Your task to perform on an android device: check battery use Image 0: 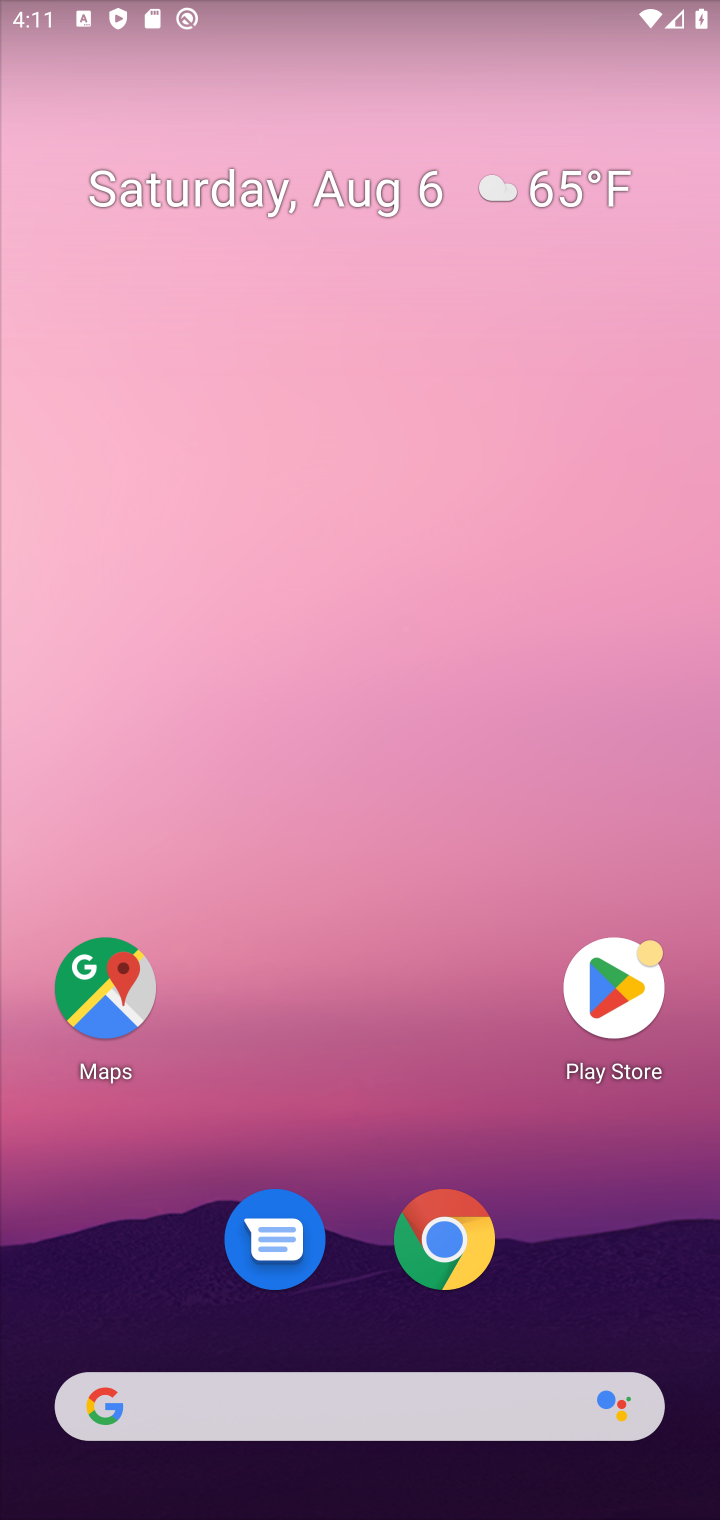
Step 0: drag from (354, 1161) to (276, 207)
Your task to perform on an android device: check battery use Image 1: 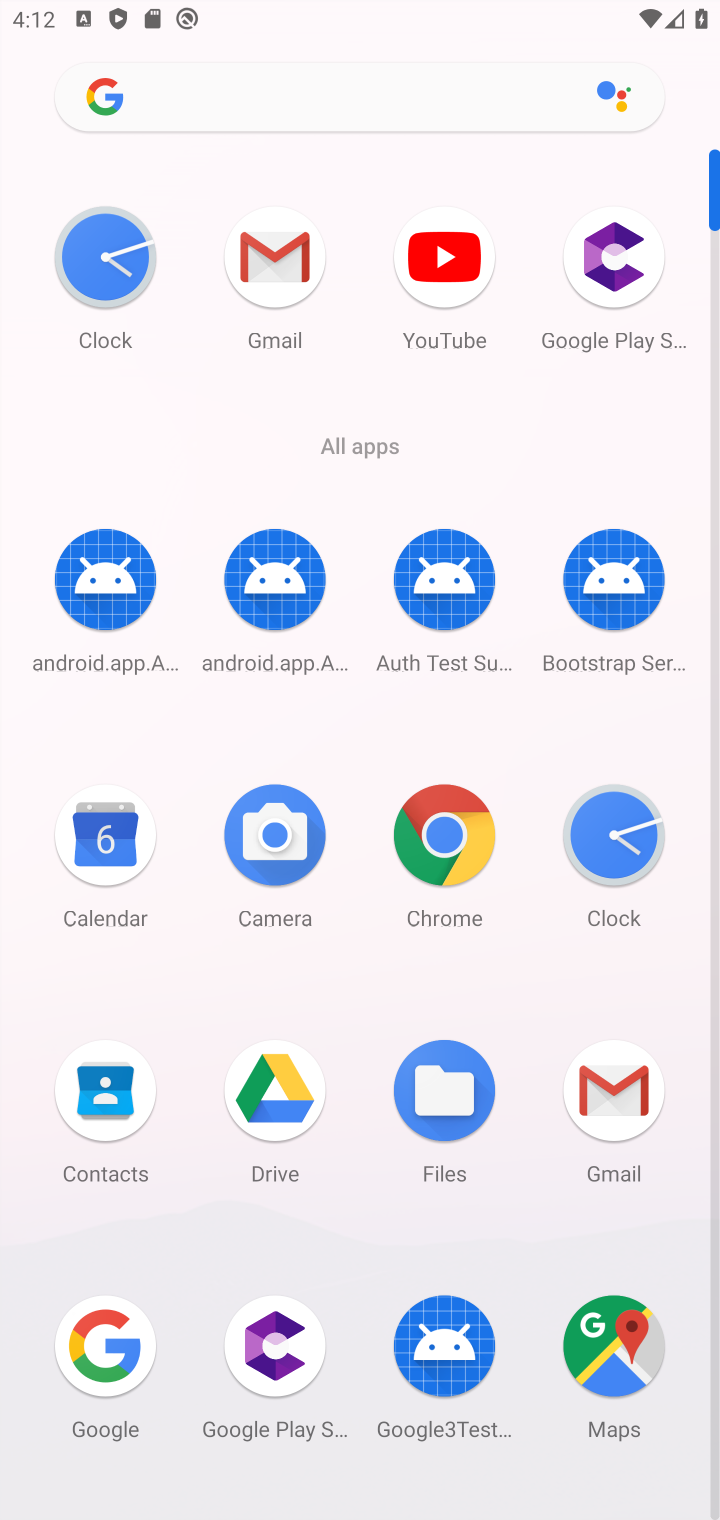
Step 1: drag from (498, 1269) to (533, 474)
Your task to perform on an android device: check battery use Image 2: 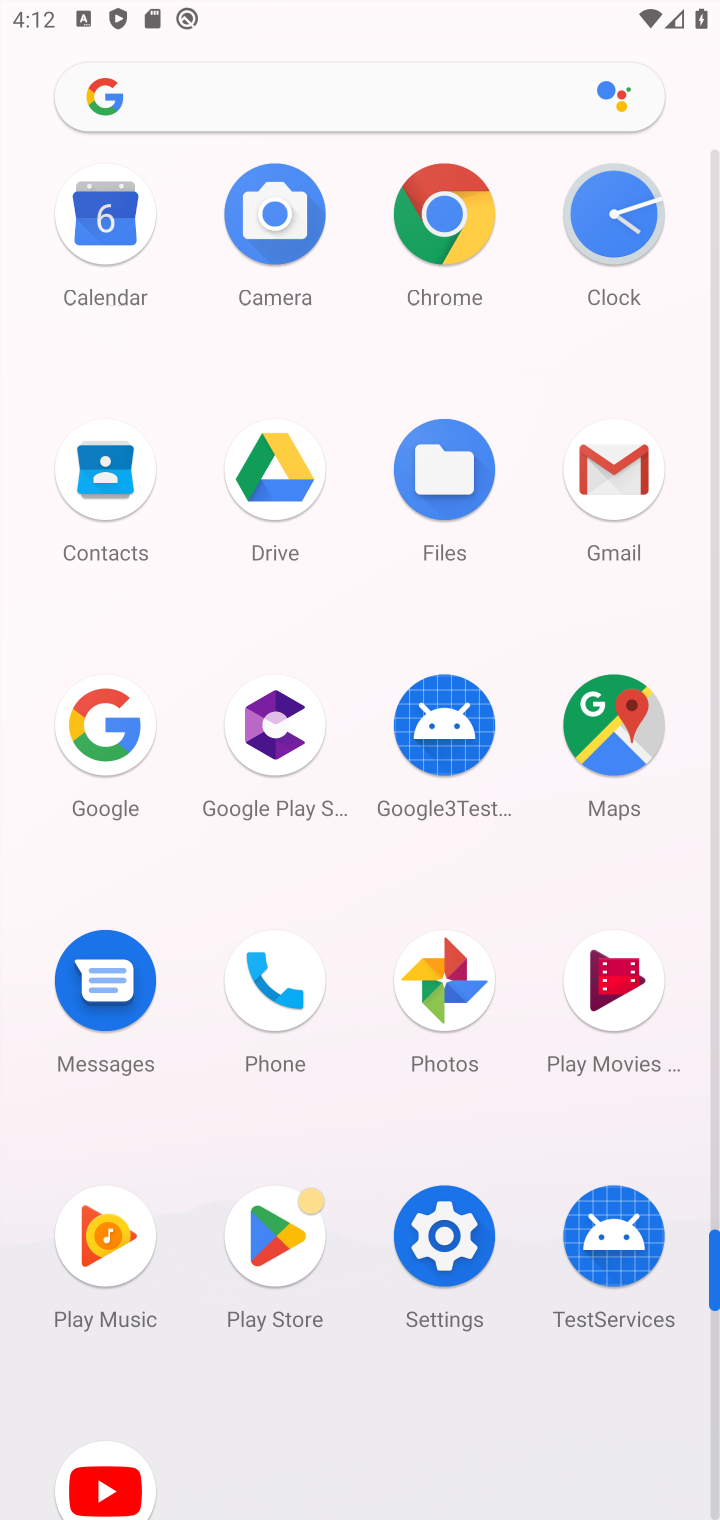
Step 2: click (461, 1212)
Your task to perform on an android device: check battery use Image 3: 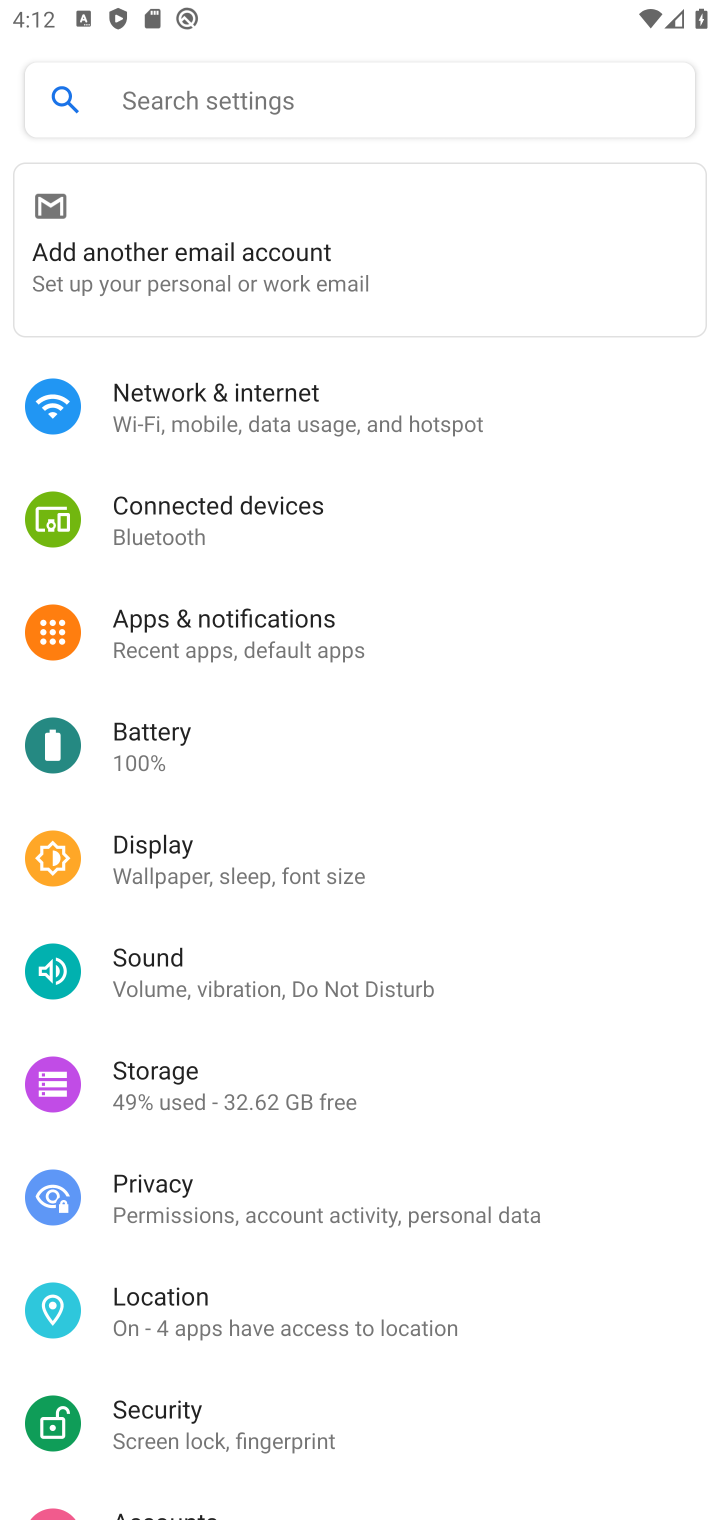
Step 3: click (263, 745)
Your task to perform on an android device: check battery use Image 4: 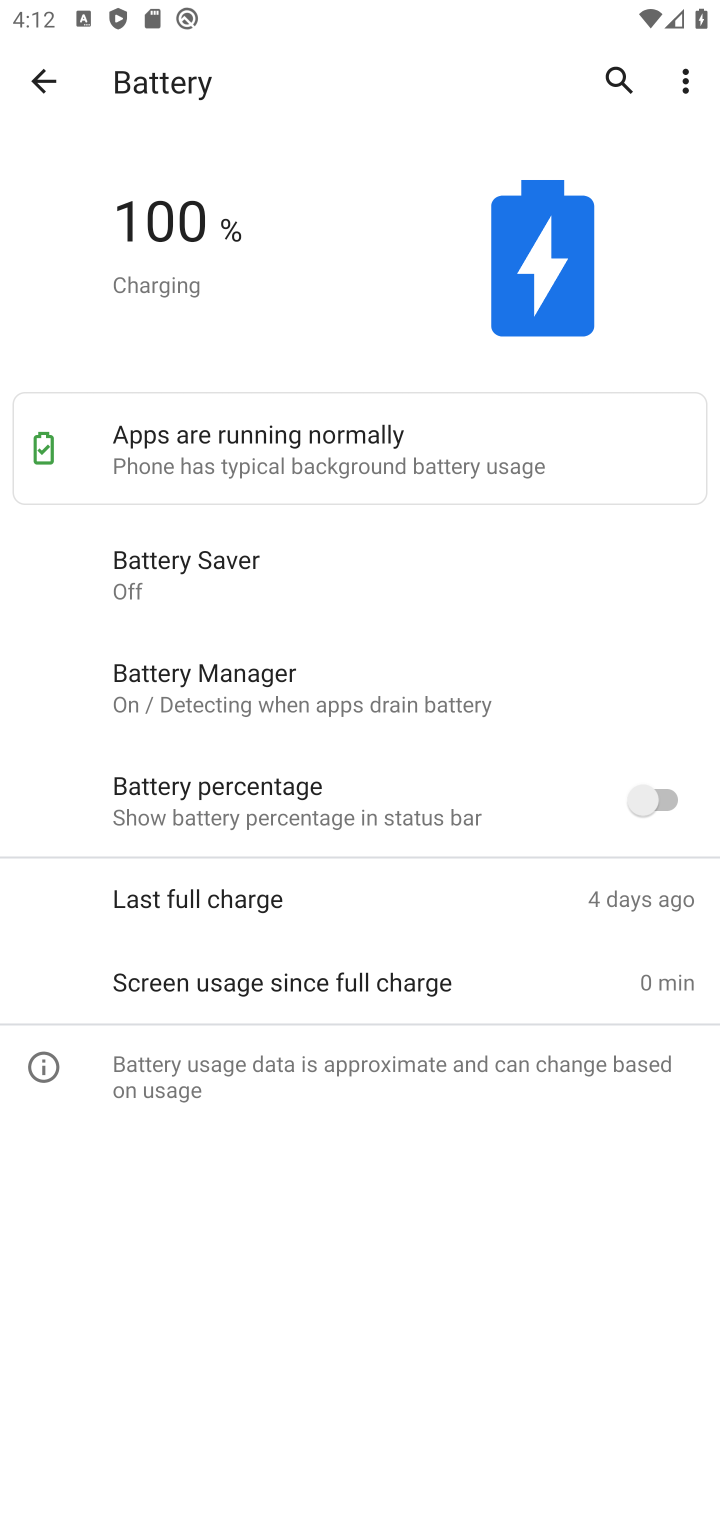
Step 4: task complete